Your task to perform on an android device: Open CNN.com Image 0: 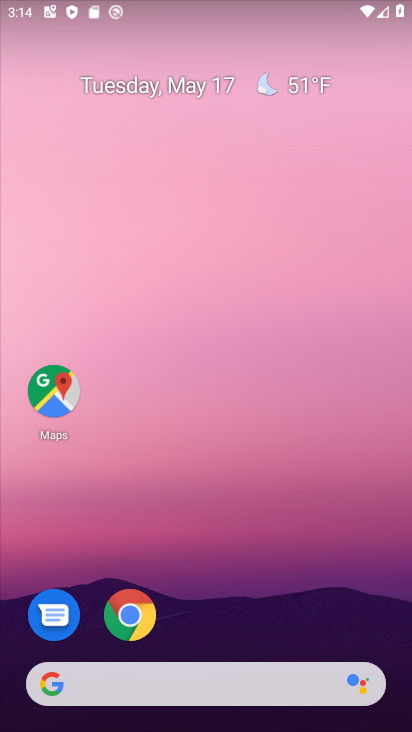
Step 0: click (133, 613)
Your task to perform on an android device: Open CNN.com Image 1: 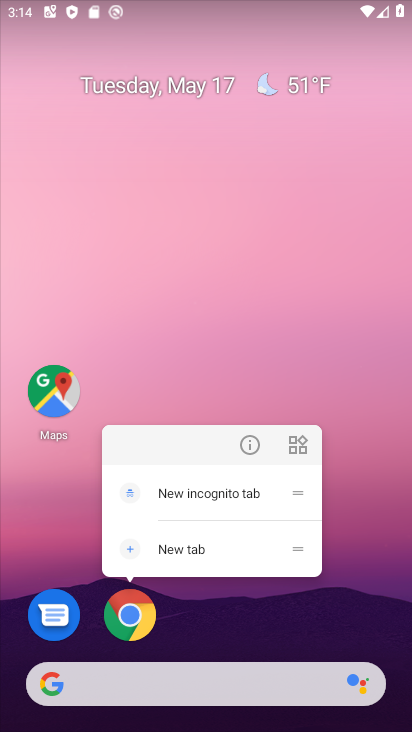
Step 1: click (130, 611)
Your task to perform on an android device: Open CNN.com Image 2: 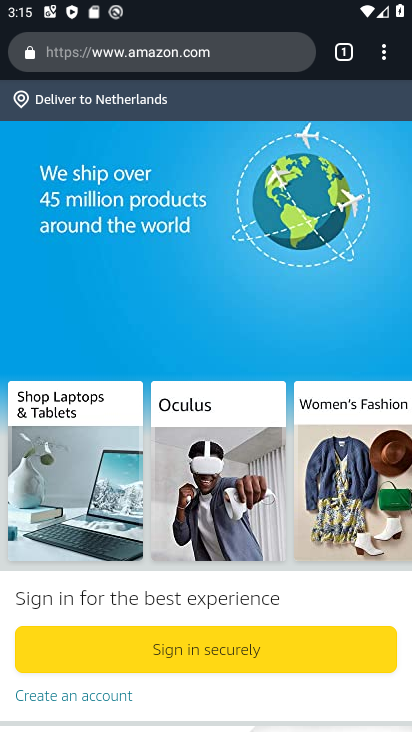
Step 2: click (344, 52)
Your task to perform on an android device: Open CNN.com Image 3: 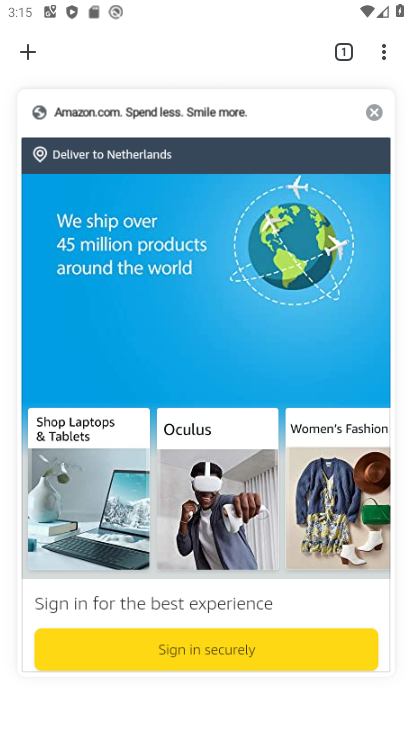
Step 3: click (375, 107)
Your task to perform on an android device: Open CNN.com Image 4: 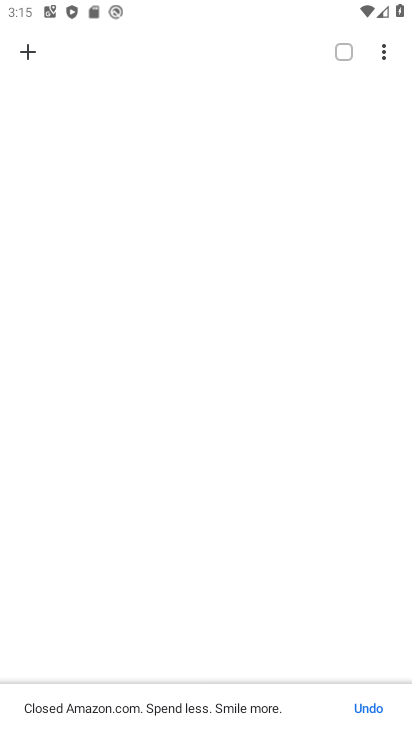
Step 4: click (27, 57)
Your task to perform on an android device: Open CNN.com Image 5: 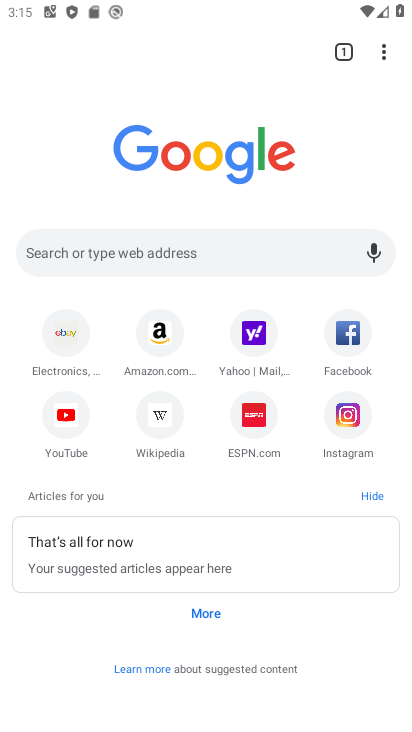
Step 5: click (102, 240)
Your task to perform on an android device: Open CNN.com Image 6: 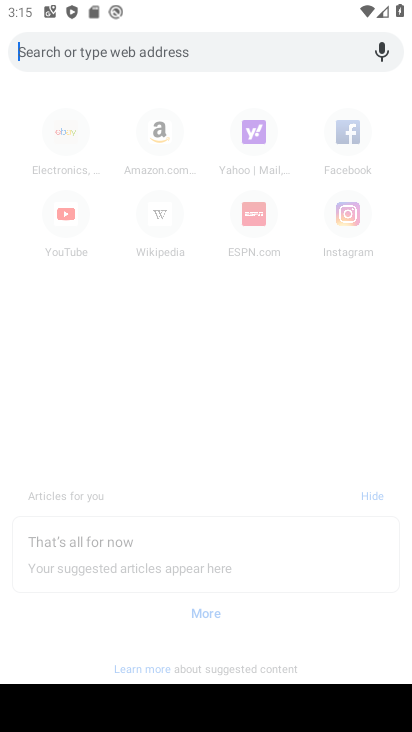
Step 6: type "cnn.com"
Your task to perform on an android device: Open CNN.com Image 7: 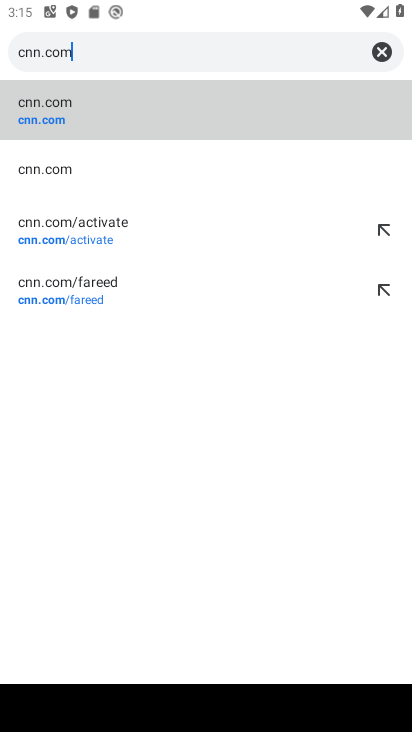
Step 7: click (62, 108)
Your task to perform on an android device: Open CNN.com Image 8: 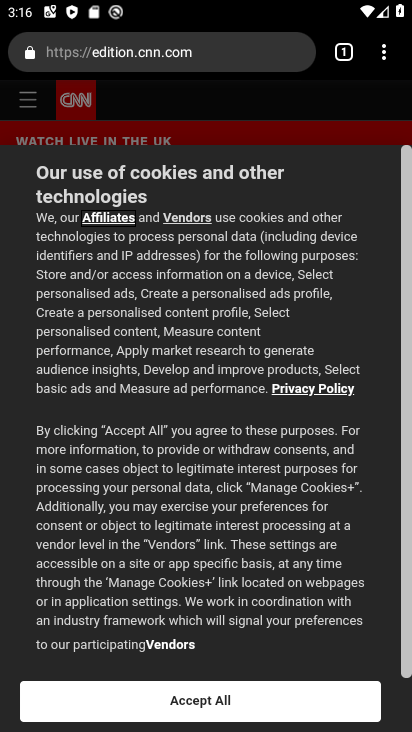
Step 8: click (229, 705)
Your task to perform on an android device: Open CNN.com Image 9: 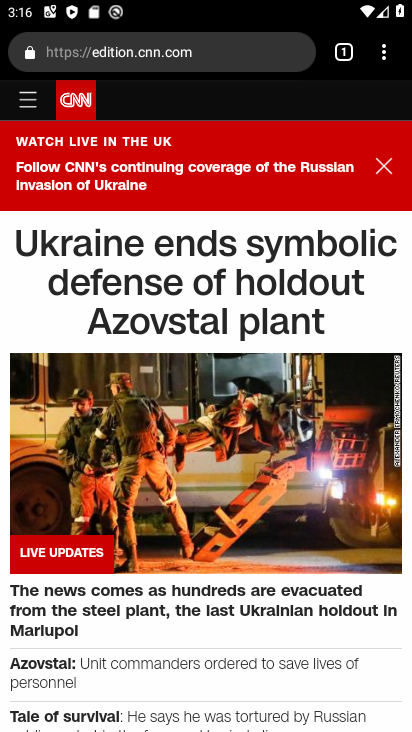
Step 9: task complete